Your task to perform on an android device: toggle translation in the chrome app Image 0: 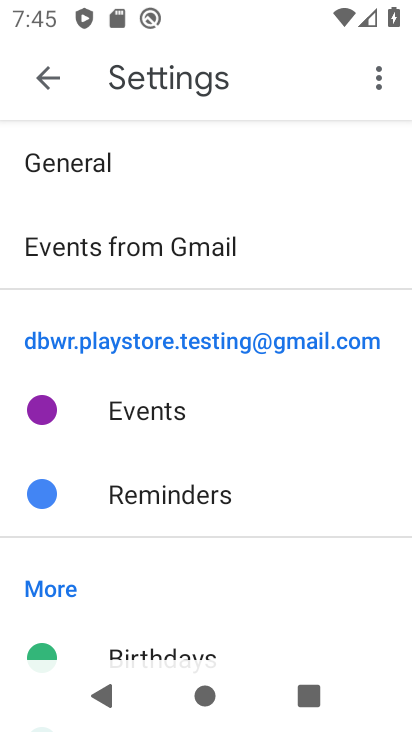
Step 0: press home button
Your task to perform on an android device: toggle translation in the chrome app Image 1: 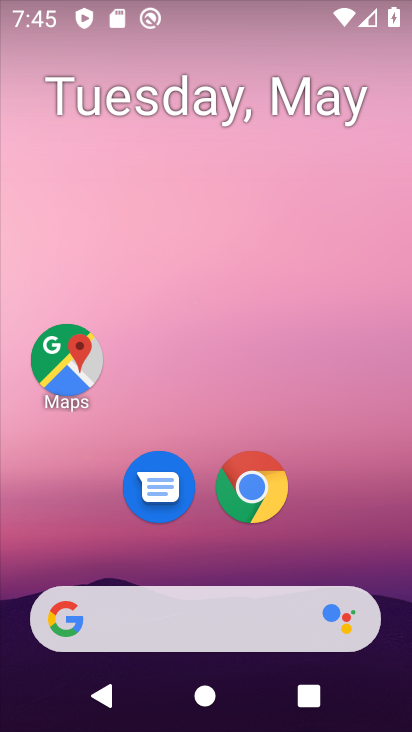
Step 1: drag from (327, 541) to (331, 327)
Your task to perform on an android device: toggle translation in the chrome app Image 2: 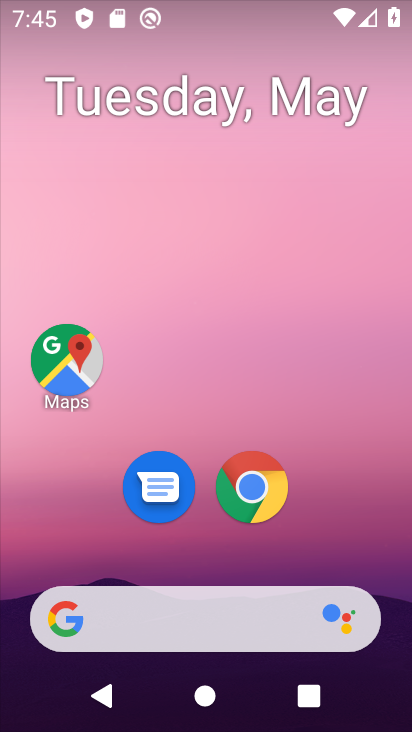
Step 2: drag from (350, 552) to (324, 36)
Your task to perform on an android device: toggle translation in the chrome app Image 3: 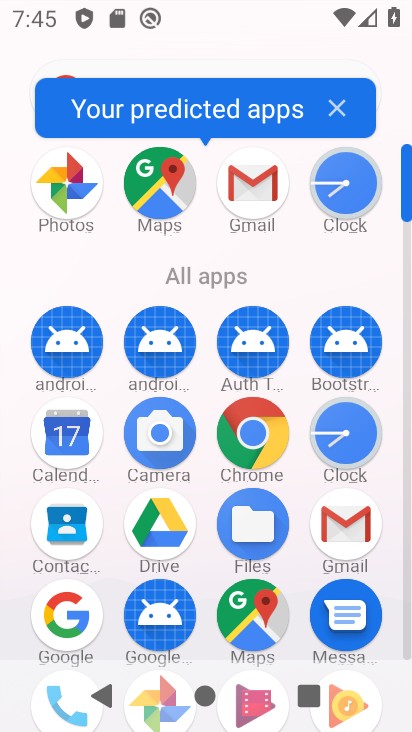
Step 3: click (234, 444)
Your task to perform on an android device: toggle translation in the chrome app Image 4: 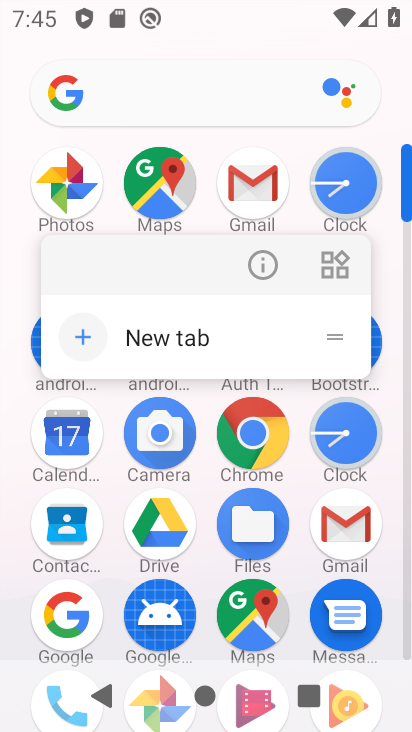
Step 4: click (234, 444)
Your task to perform on an android device: toggle translation in the chrome app Image 5: 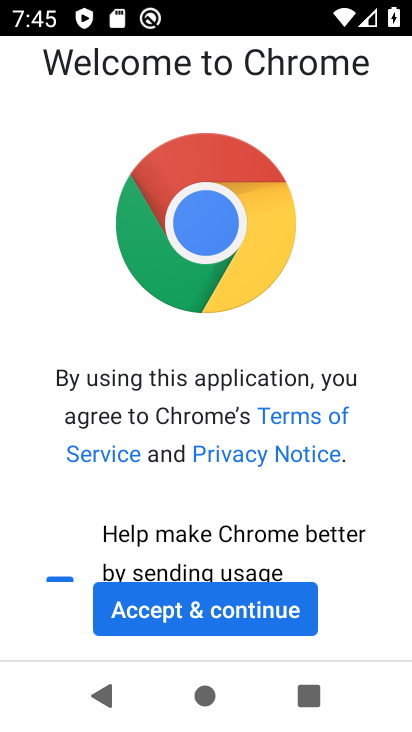
Step 5: click (208, 630)
Your task to perform on an android device: toggle translation in the chrome app Image 6: 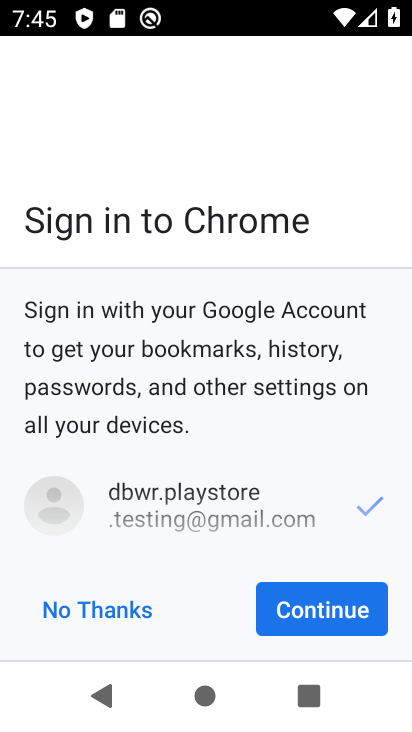
Step 6: click (310, 609)
Your task to perform on an android device: toggle translation in the chrome app Image 7: 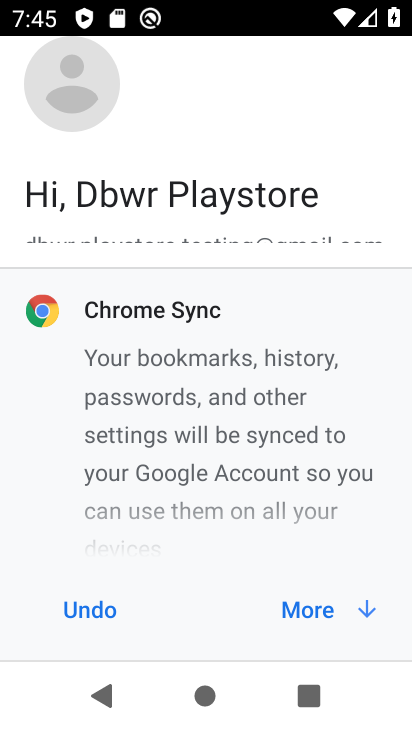
Step 7: click (310, 609)
Your task to perform on an android device: toggle translation in the chrome app Image 8: 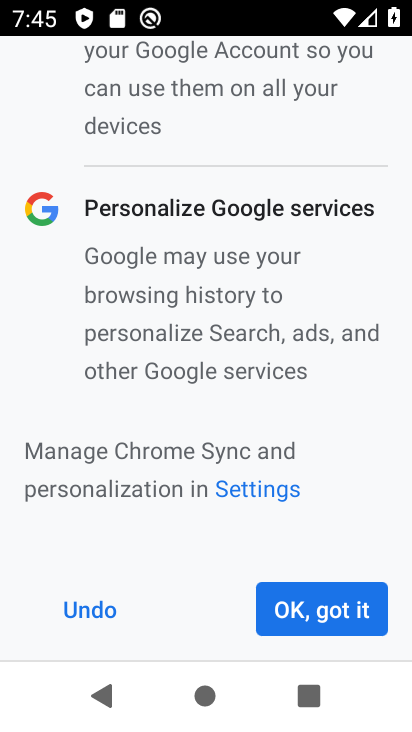
Step 8: click (310, 609)
Your task to perform on an android device: toggle translation in the chrome app Image 9: 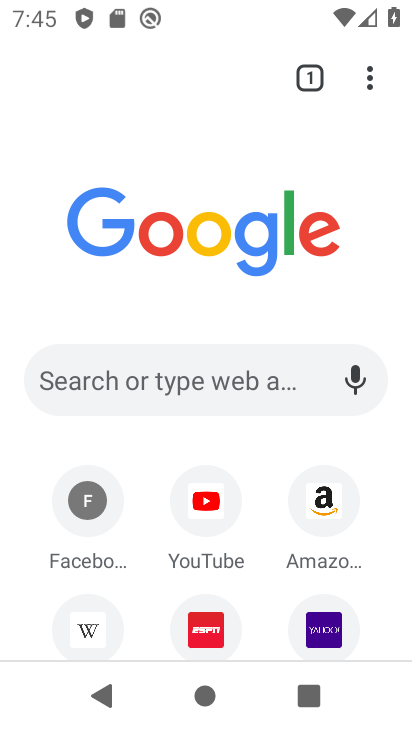
Step 9: click (368, 81)
Your task to perform on an android device: toggle translation in the chrome app Image 10: 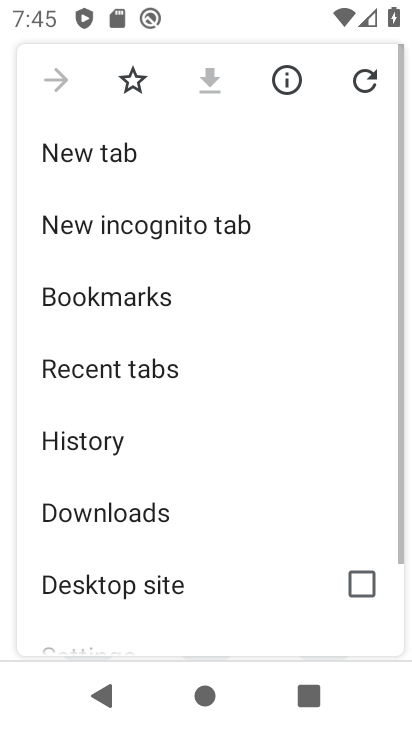
Step 10: drag from (234, 532) to (248, 252)
Your task to perform on an android device: toggle translation in the chrome app Image 11: 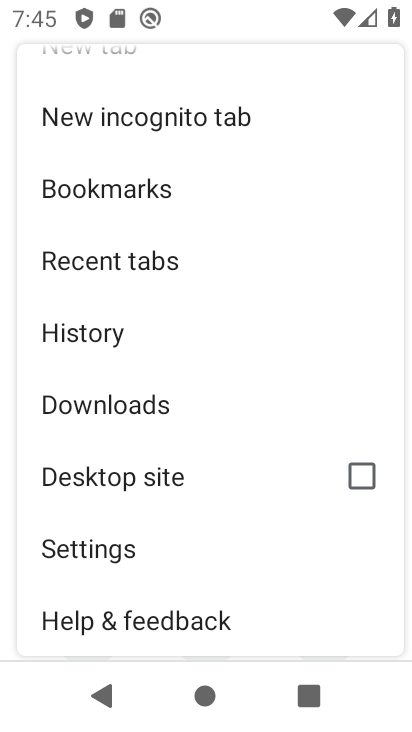
Step 11: click (196, 545)
Your task to perform on an android device: toggle translation in the chrome app Image 12: 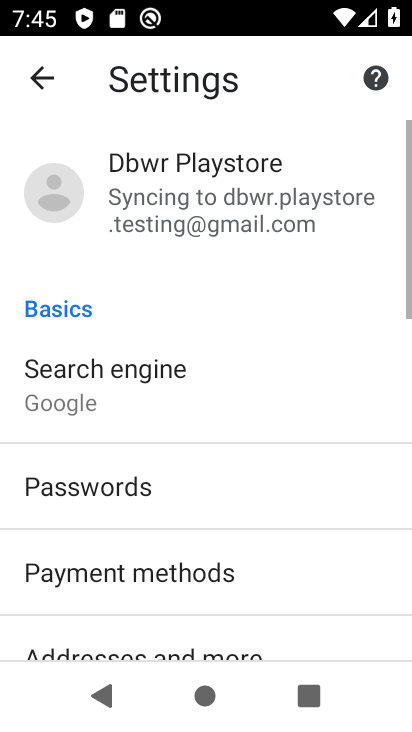
Step 12: drag from (196, 545) to (230, 312)
Your task to perform on an android device: toggle translation in the chrome app Image 13: 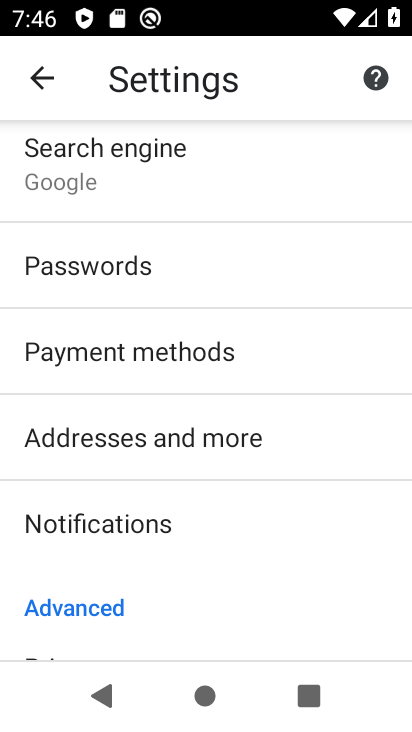
Step 13: drag from (203, 648) to (213, 309)
Your task to perform on an android device: toggle translation in the chrome app Image 14: 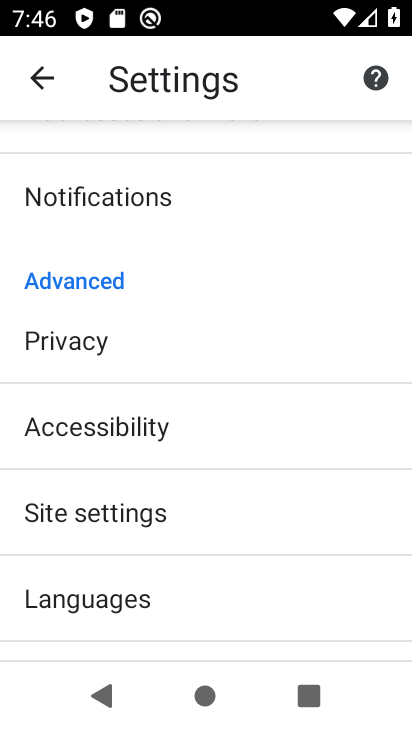
Step 14: click (172, 623)
Your task to perform on an android device: toggle translation in the chrome app Image 15: 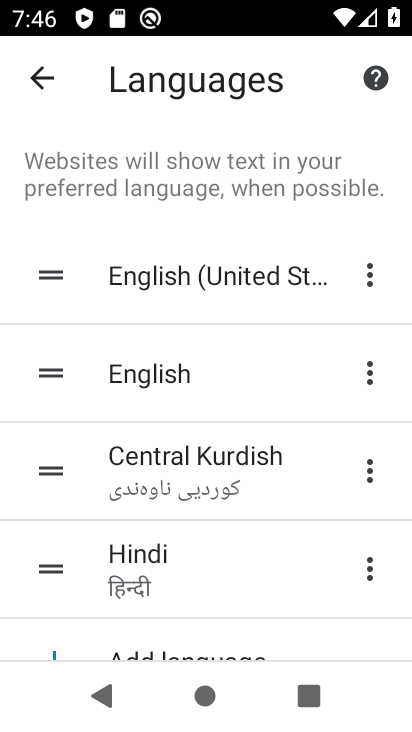
Step 15: click (147, 262)
Your task to perform on an android device: toggle translation in the chrome app Image 16: 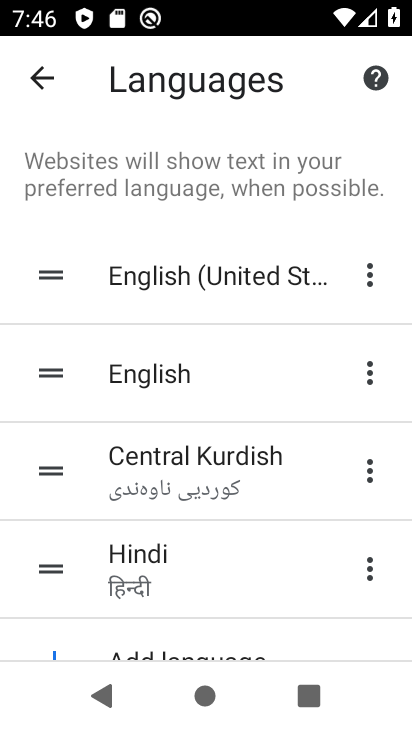
Step 16: drag from (165, 494) to (195, 168)
Your task to perform on an android device: toggle translation in the chrome app Image 17: 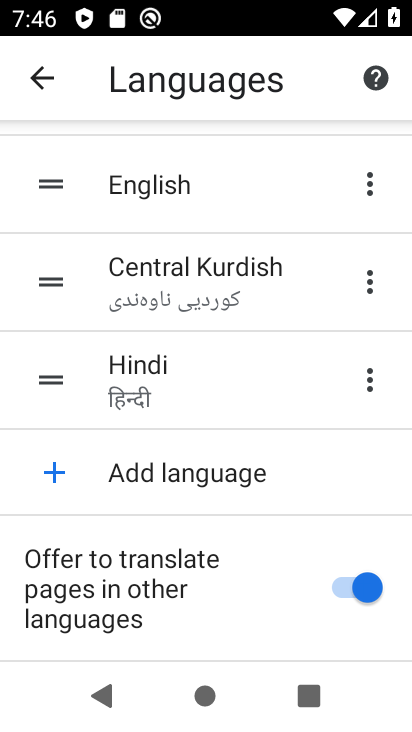
Step 17: click (328, 553)
Your task to perform on an android device: toggle translation in the chrome app Image 18: 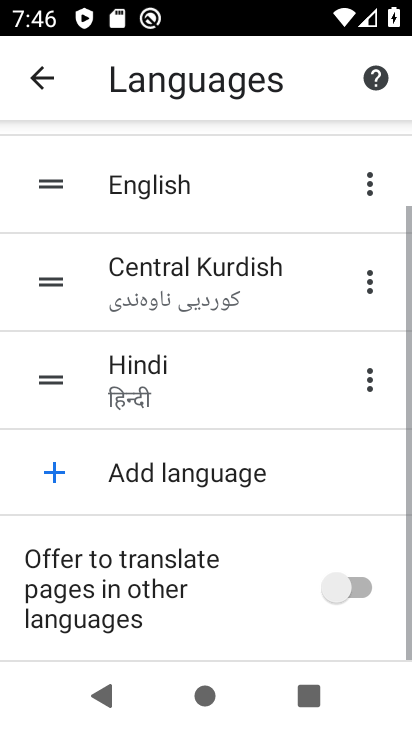
Step 18: task complete